Your task to perform on an android device: Open Google Maps Image 0: 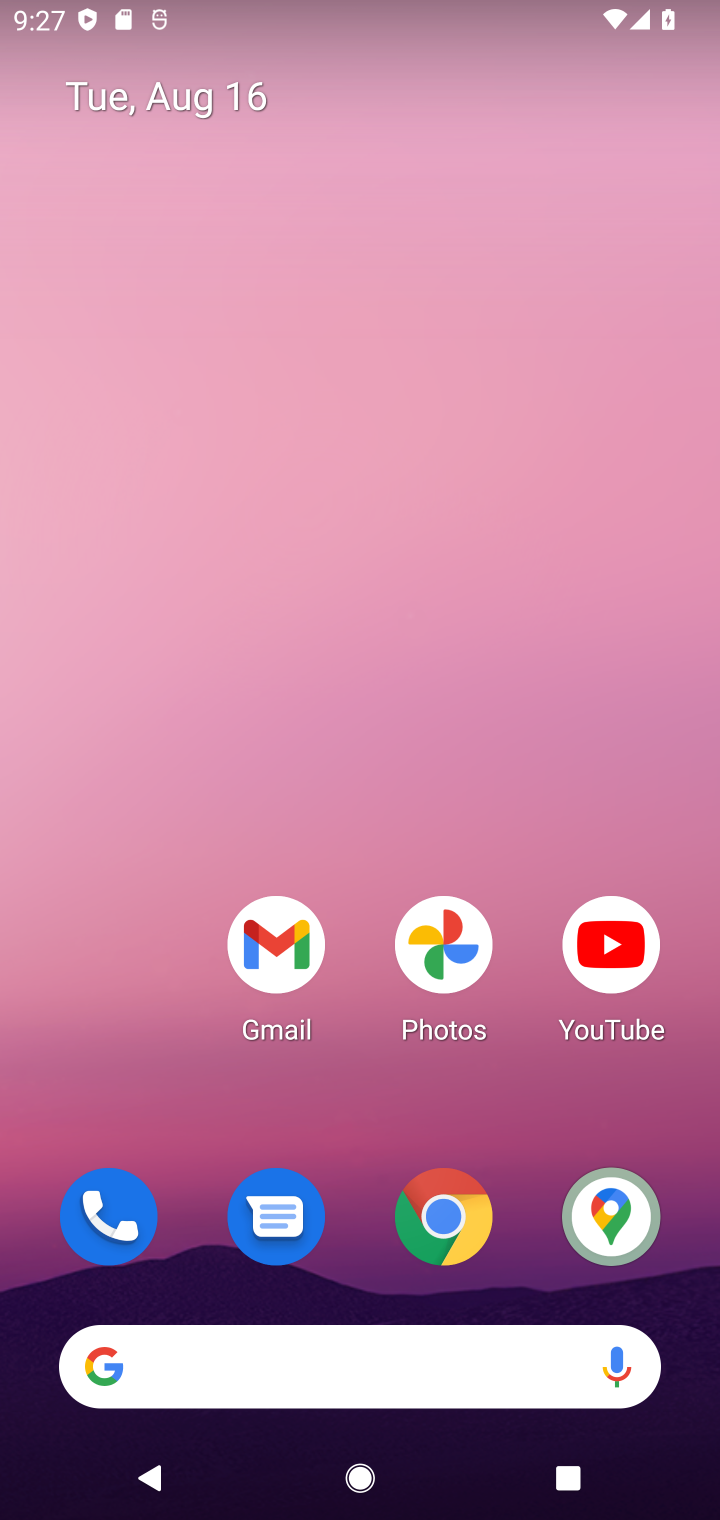
Step 0: drag from (359, 1131) to (359, 160)
Your task to perform on an android device: Open Google Maps Image 1: 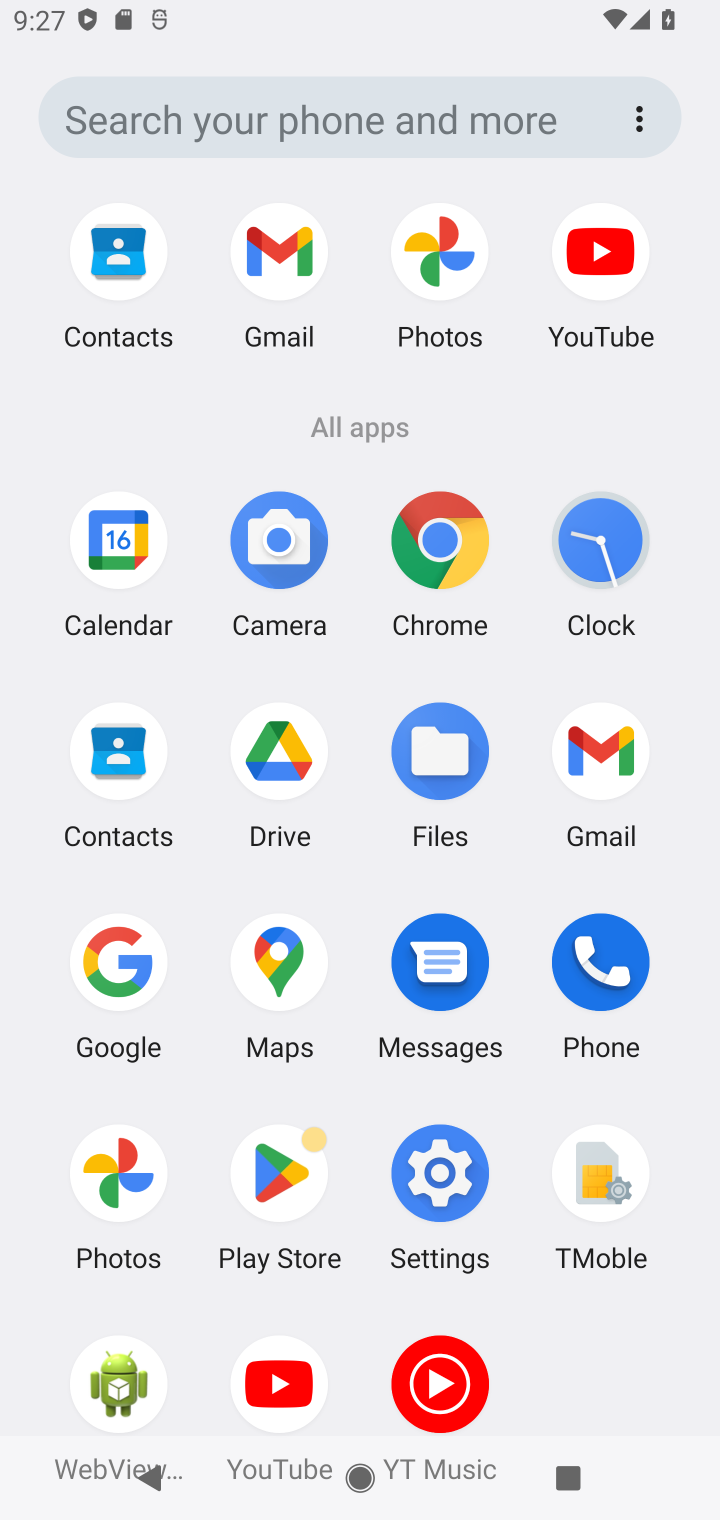
Step 1: click (282, 954)
Your task to perform on an android device: Open Google Maps Image 2: 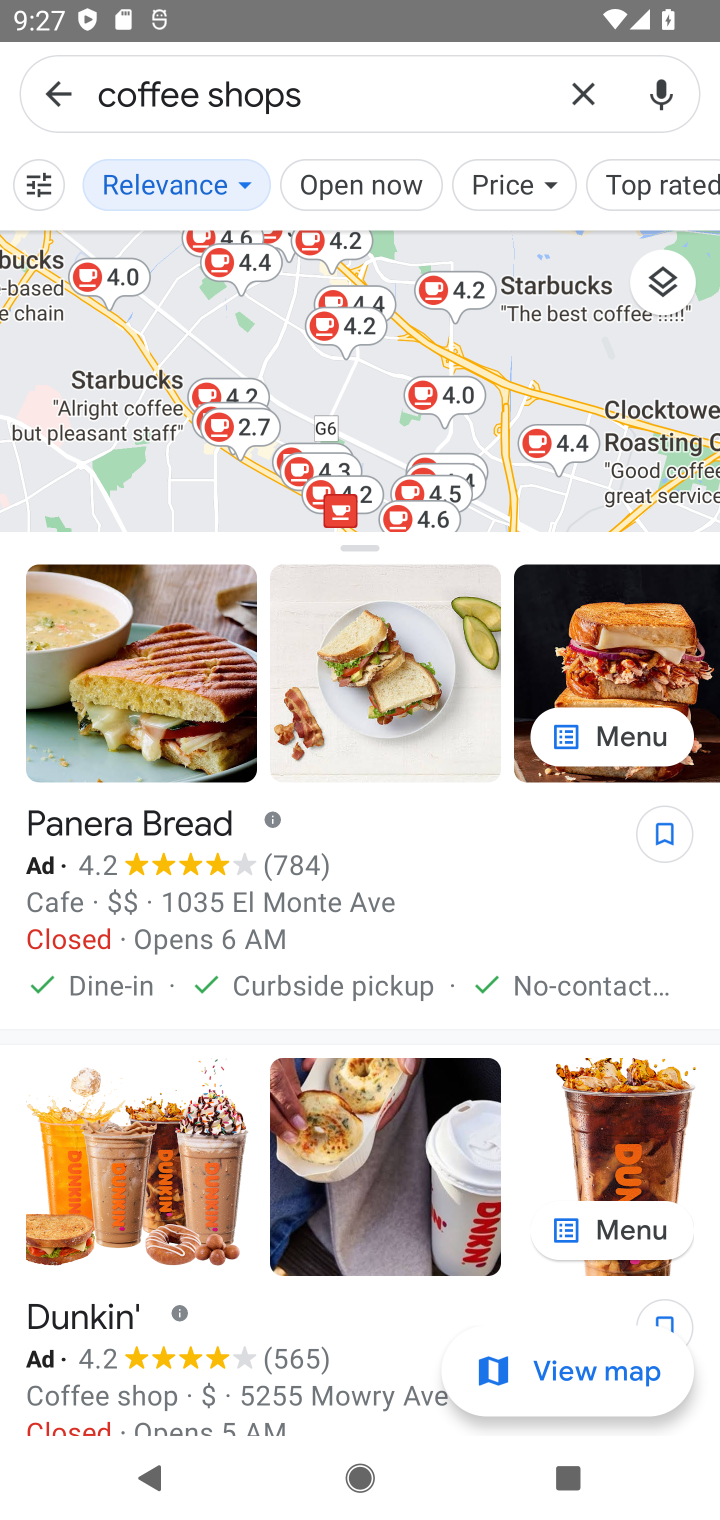
Step 2: task complete